Your task to perform on an android device: What's on my calendar tomorrow? Image 0: 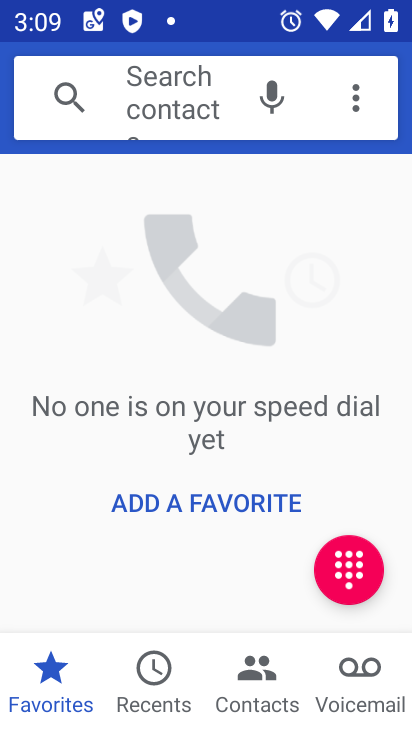
Step 0: press home button
Your task to perform on an android device: What's on my calendar tomorrow? Image 1: 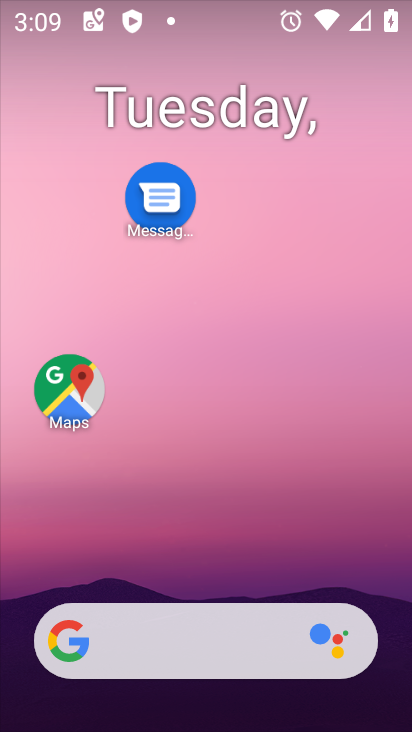
Step 1: drag from (192, 563) to (239, 177)
Your task to perform on an android device: What's on my calendar tomorrow? Image 2: 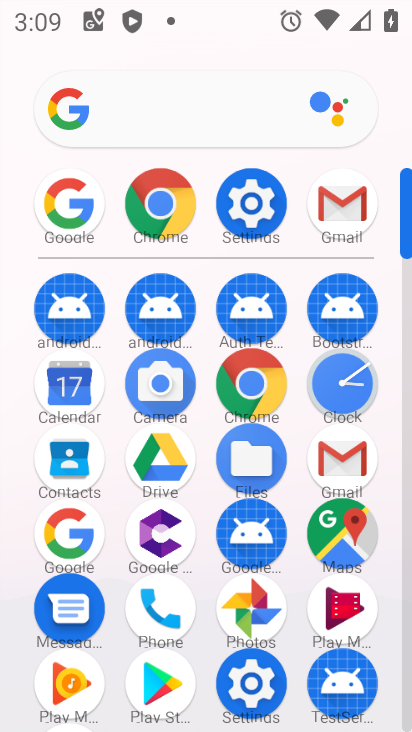
Step 2: click (55, 387)
Your task to perform on an android device: What's on my calendar tomorrow? Image 3: 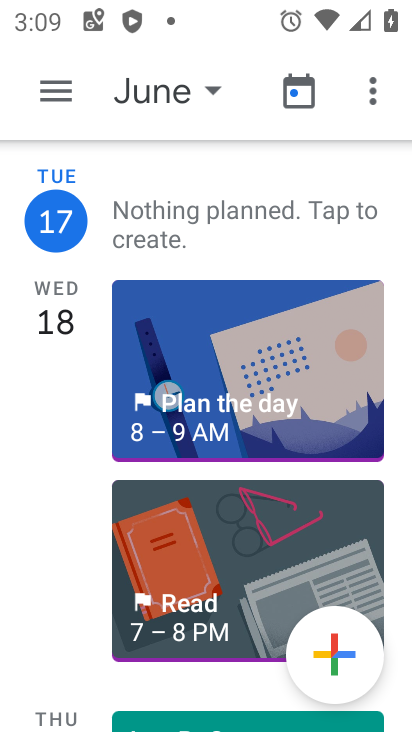
Step 3: click (193, 80)
Your task to perform on an android device: What's on my calendar tomorrow? Image 4: 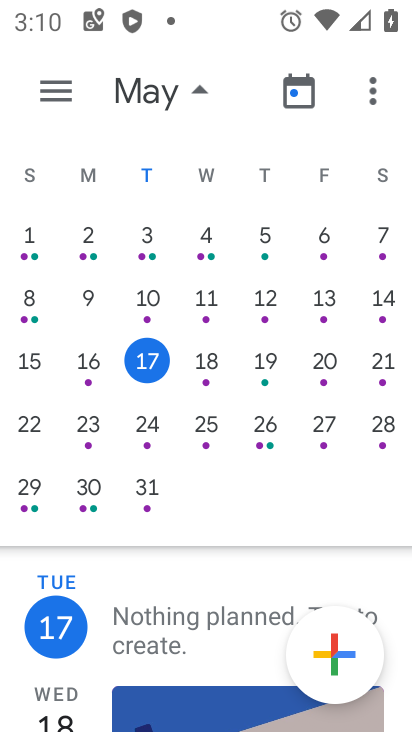
Step 4: task complete